Your task to perform on an android device: turn off wifi Image 0: 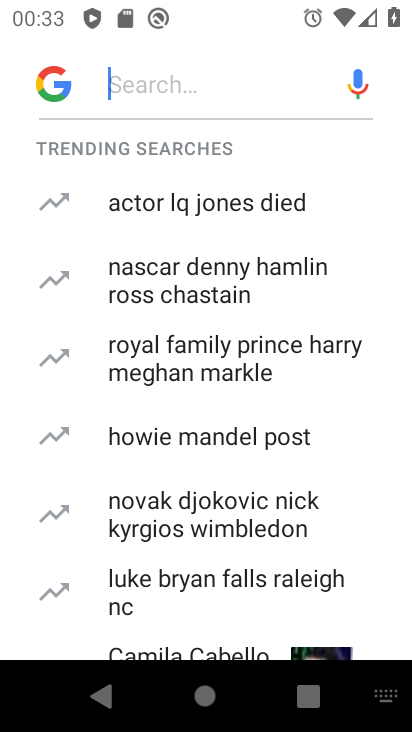
Step 0: press home button
Your task to perform on an android device: turn off wifi Image 1: 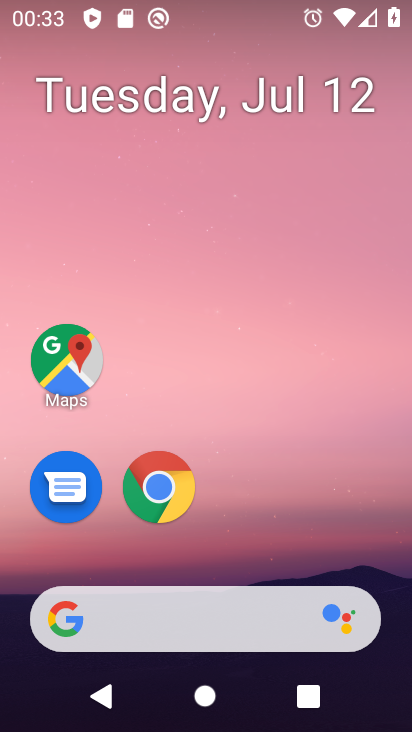
Step 1: drag from (321, 535) to (337, 138)
Your task to perform on an android device: turn off wifi Image 2: 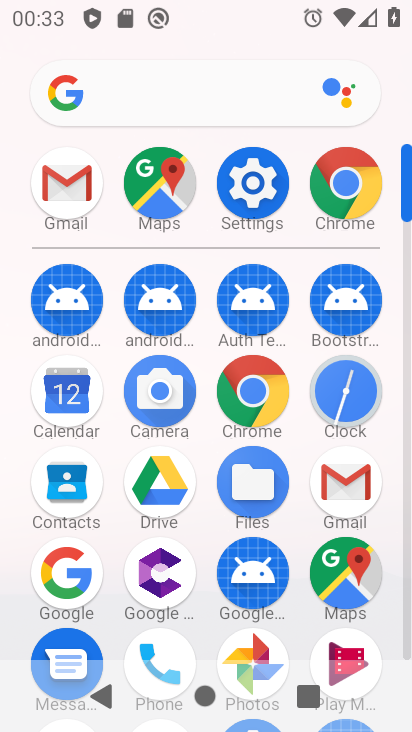
Step 2: click (262, 208)
Your task to perform on an android device: turn off wifi Image 3: 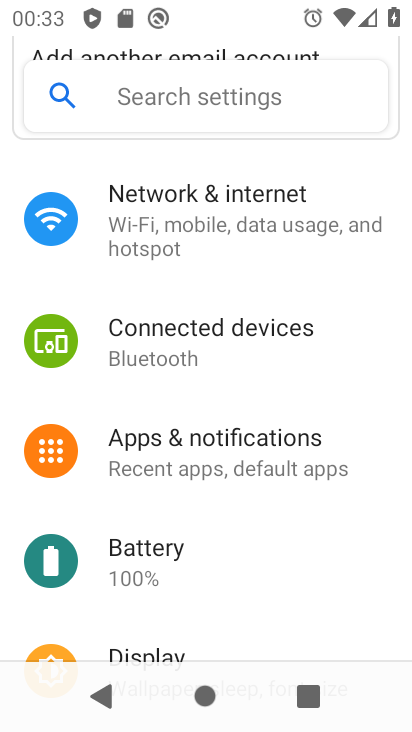
Step 3: drag from (365, 558) to (373, 360)
Your task to perform on an android device: turn off wifi Image 4: 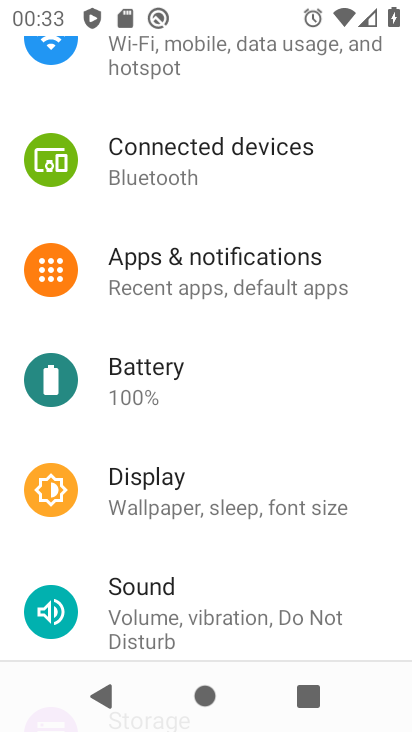
Step 4: drag from (350, 538) to (350, 390)
Your task to perform on an android device: turn off wifi Image 5: 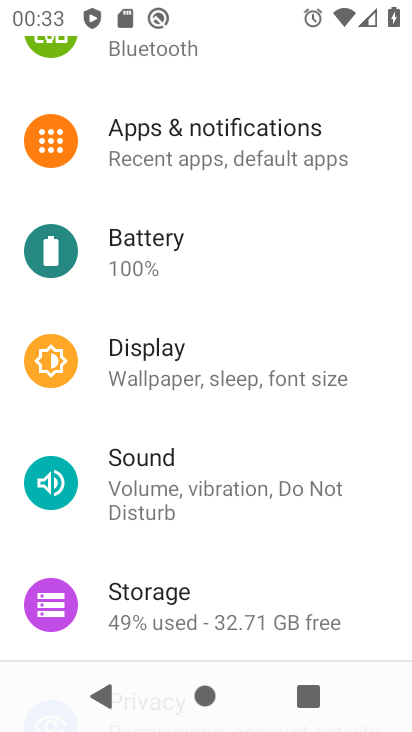
Step 5: drag from (350, 560) to (349, 353)
Your task to perform on an android device: turn off wifi Image 6: 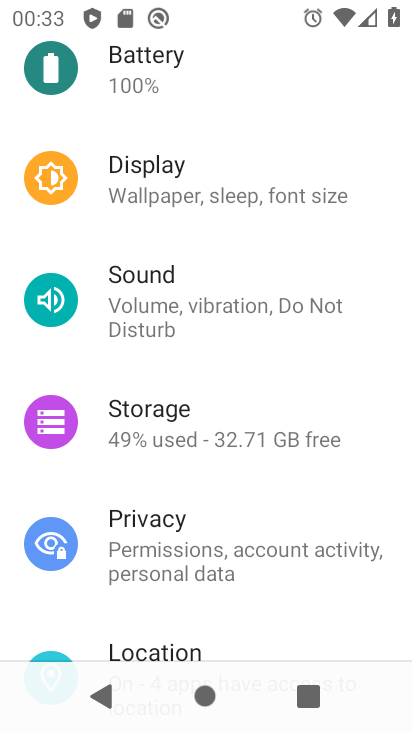
Step 6: drag from (360, 600) to (356, 417)
Your task to perform on an android device: turn off wifi Image 7: 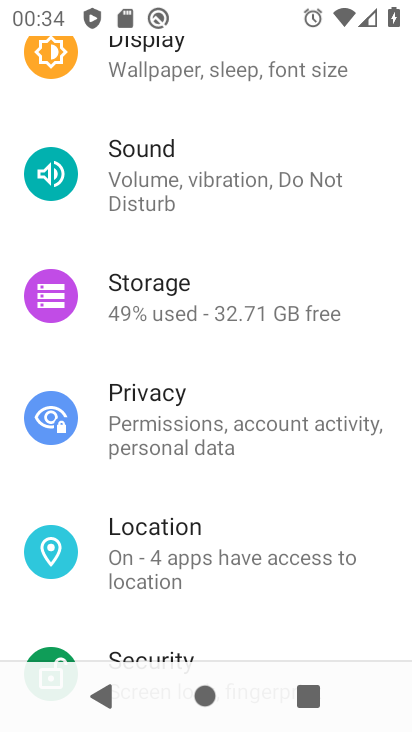
Step 7: drag from (356, 598) to (334, 421)
Your task to perform on an android device: turn off wifi Image 8: 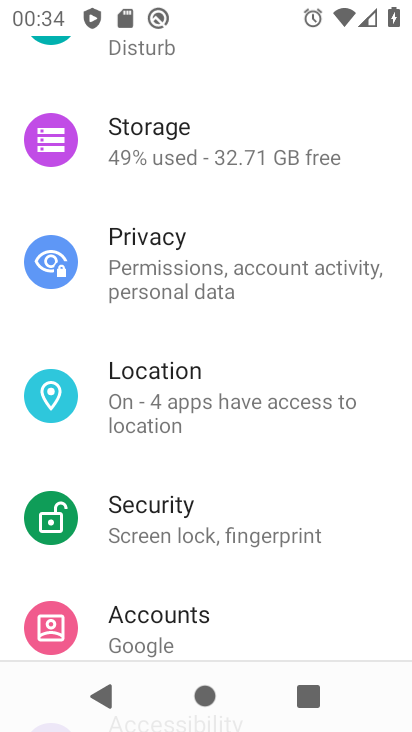
Step 8: drag from (361, 584) to (354, 319)
Your task to perform on an android device: turn off wifi Image 9: 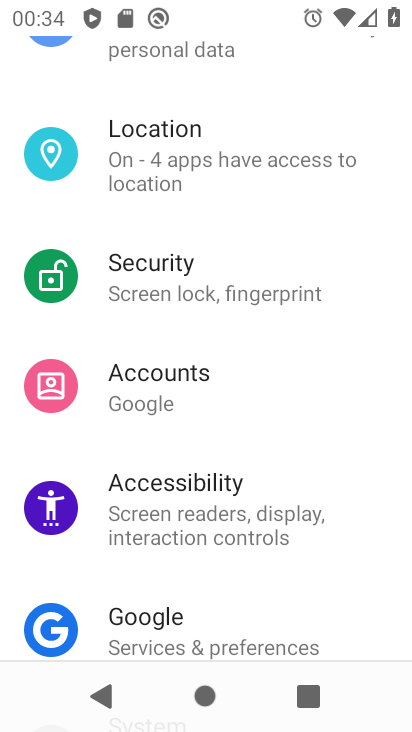
Step 9: drag from (353, 210) to (348, 245)
Your task to perform on an android device: turn off wifi Image 10: 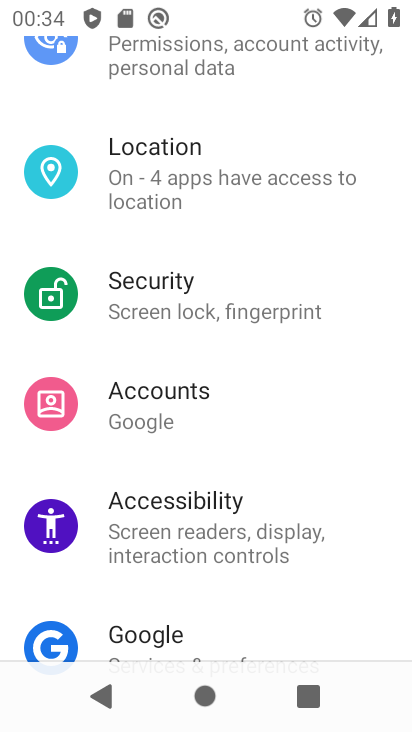
Step 10: drag from (358, 208) to (368, 465)
Your task to perform on an android device: turn off wifi Image 11: 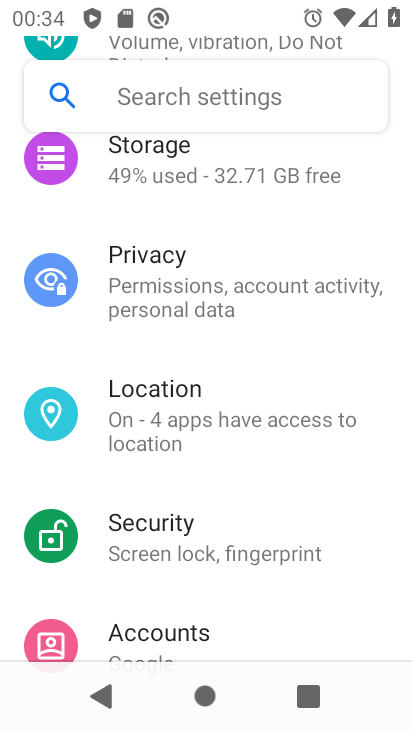
Step 11: drag from (353, 260) to (356, 398)
Your task to perform on an android device: turn off wifi Image 12: 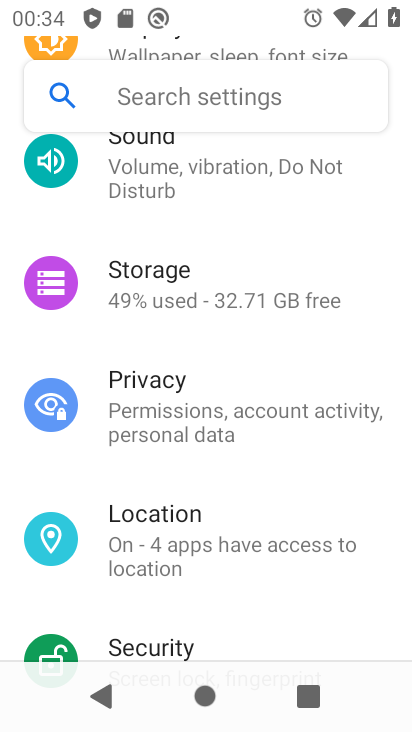
Step 12: drag from (343, 207) to (338, 364)
Your task to perform on an android device: turn off wifi Image 13: 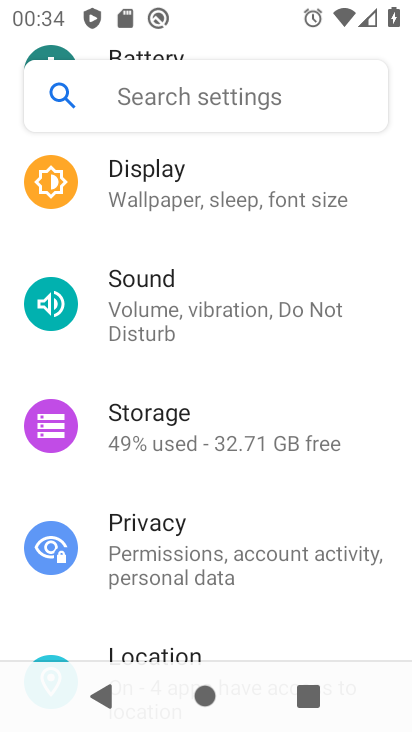
Step 13: drag from (339, 193) to (346, 410)
Your task to perform on an android device: turn off wifi Image 14: 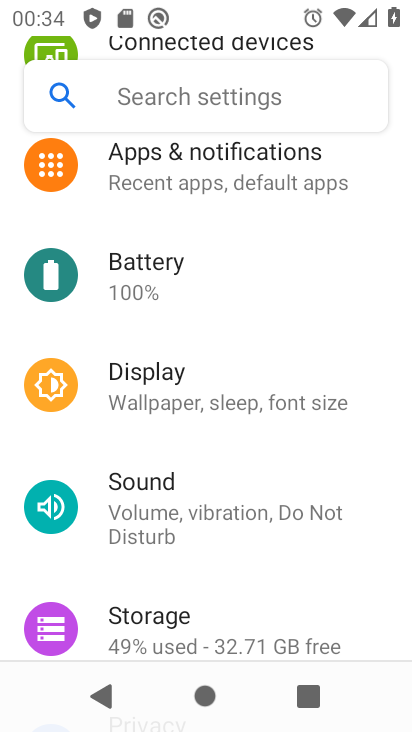
Step 14: drag from (362, 263) to (353, 414)
Your task to perform on an android device: turn off wifi Image 15: 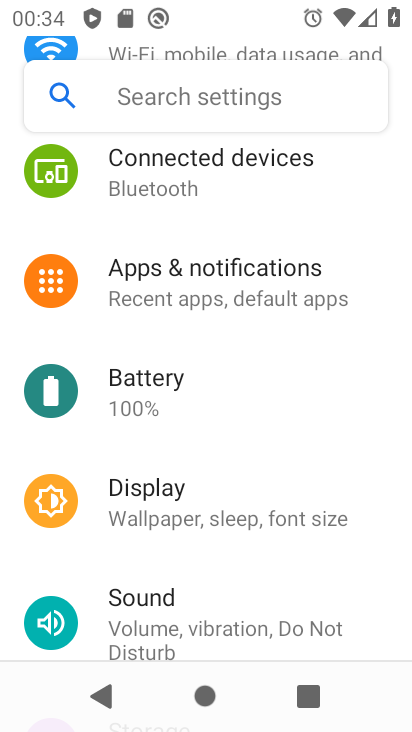
Step 15: drag from (351, 225) to (360, 475)
Your task to perform on an android device: turn off wifi Image 16: 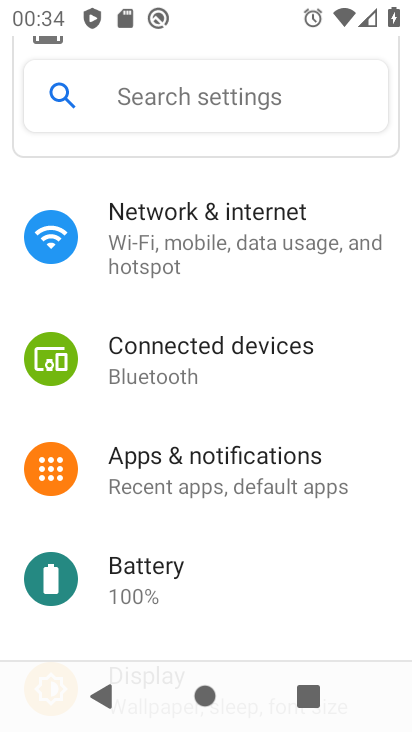
Step 16: click (291, 247)
Your task to perform on an android device: turn off wifi Image 17: 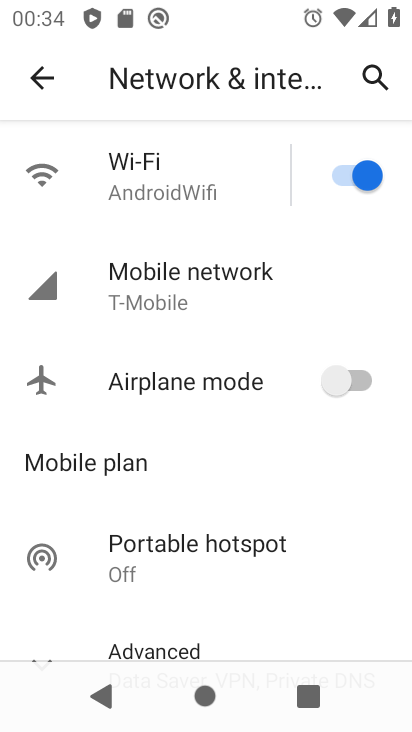
Step 17: click (342, 180)
Your task to perform on an android device: turn off wifi Image 18: 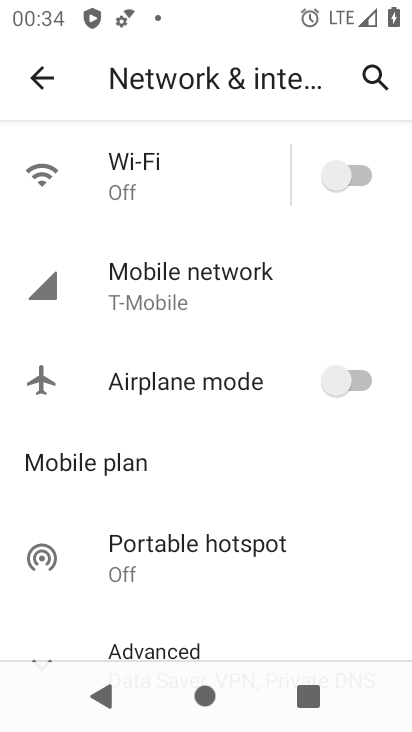
Step 18: task complete